Your task to perform on an android device: Set the phone to "Do not disturb". Image 0: 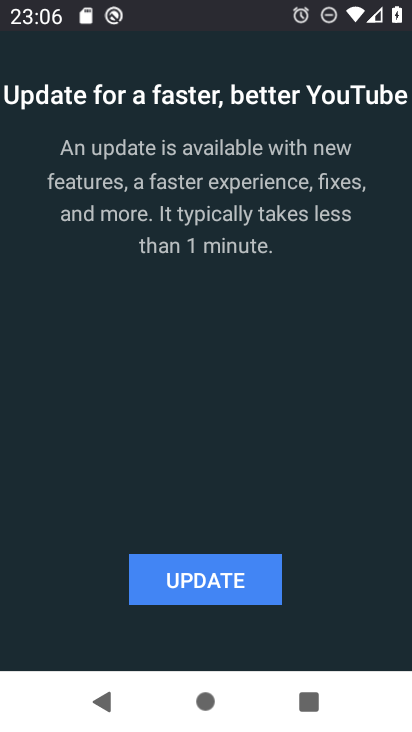
Step 0: press home button
Your task to perform on an android device: Set the phone to "Do not disturb". Image 1: 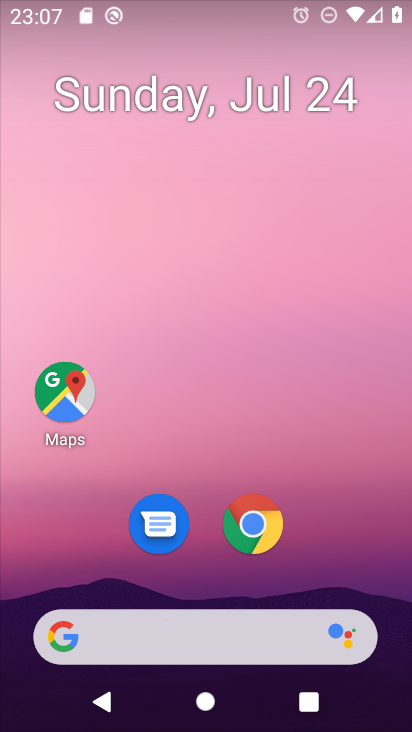
Step 1: drag from (158, 637) to (289, 108)
Your task to perform on an android device: Set the phone to "Do not disturb". Image 2: 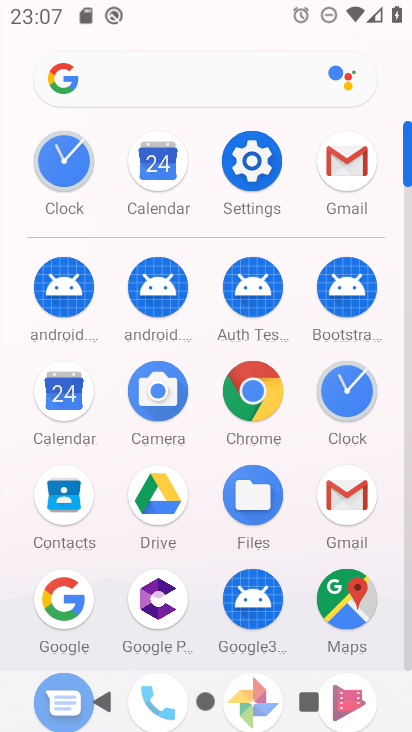
Step 2: click (255, 163)
Your task to perform on an android device: Set the phone to "Do not disturb". Image 3: 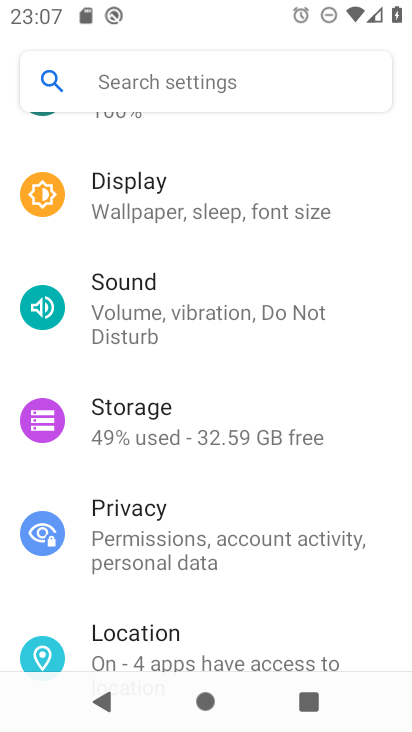
Step 3: drag from (281, 148) to (298, 615)
Your task to perform on an android device: Set the phone to "Do not disturb". Image 4: 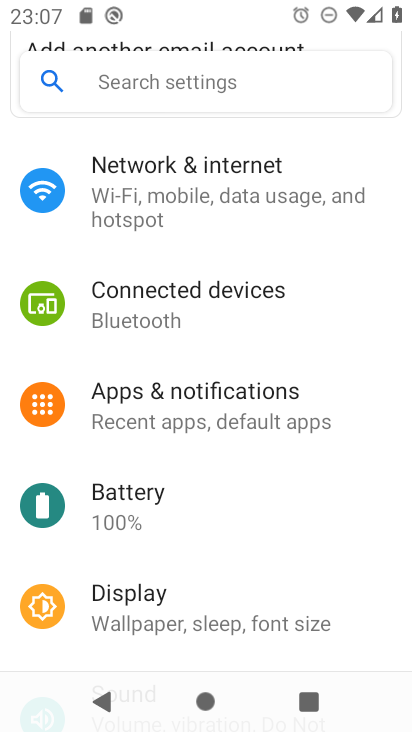
Step 4: drag from (276, 553) to (398, 203)
Your task to perform on an android device: Set the phone to "Do not disturb". Image 5: 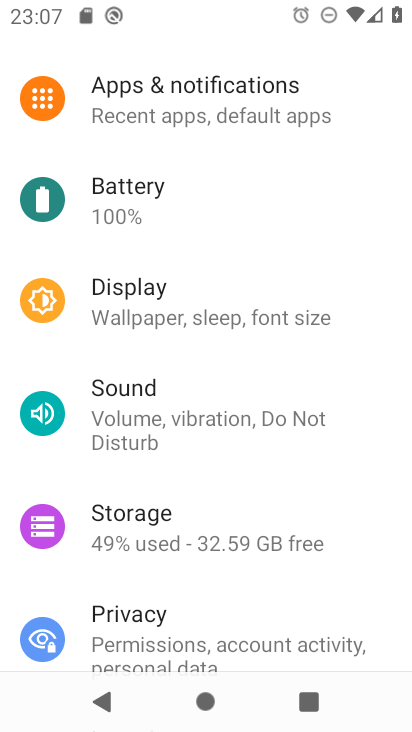
Step 5: click (150, 416)
Your task to perform on an android device: Set the phone to "Do not disturb". Image 6: 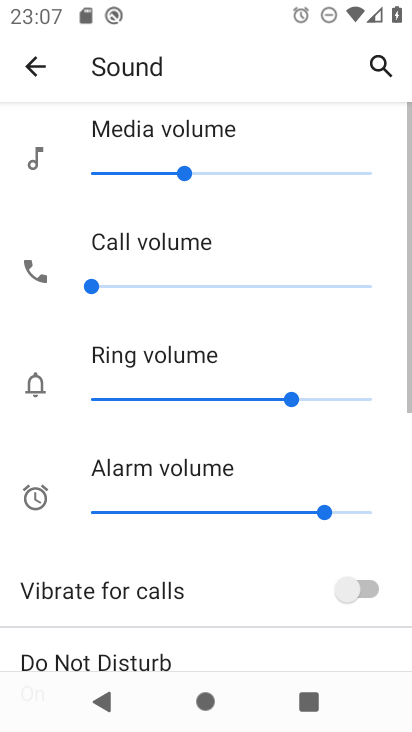
Step 6: drag from (204, 603) to (211, 115)
Your task to perform on an android device: Set the phone to "Do not disturb". Image 7: 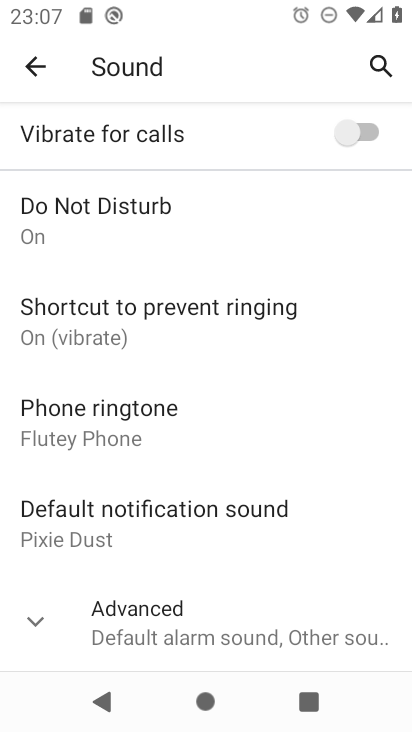
Step 7: click (106, 213)
Your task to perform on an android device: Set the phone to "Do not disturb". Image 8: 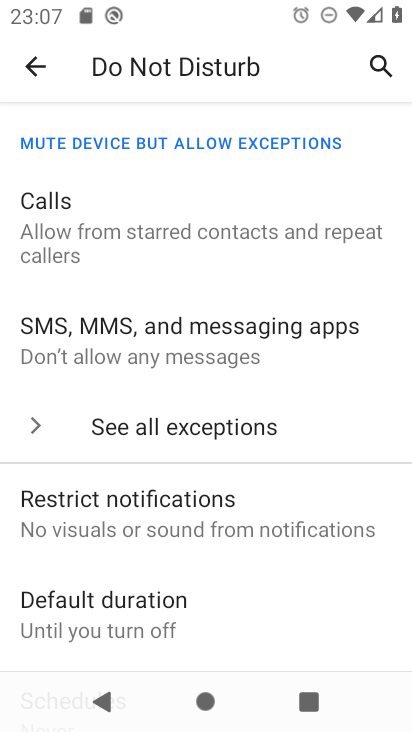
Step 8: task complete